Your task to perform on an android device: visit the assistant section in the google photos Image 0: 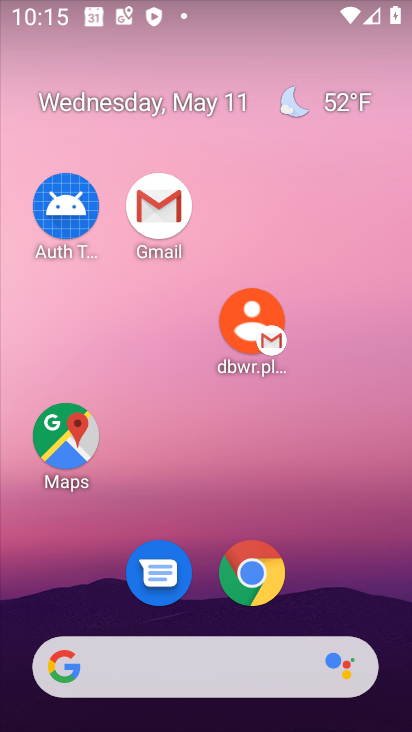
Step 0: click (294, 289)
Your task to perform on an android device: visit the assistant section in the google photos Image 1: 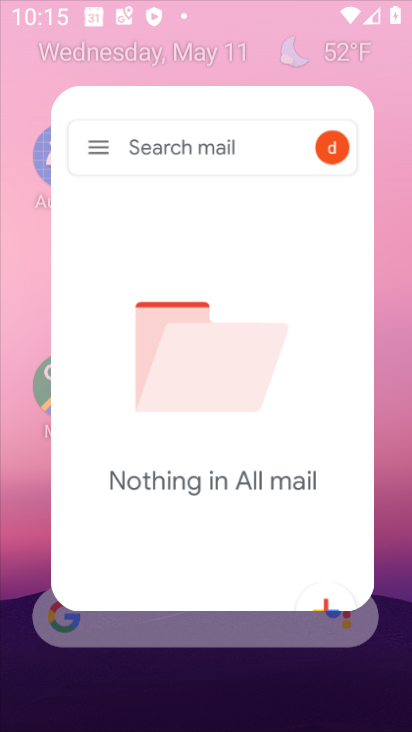
Step 1: press back button
Your task to perform on an android device: visit the assistant section in the google photos Image 2: 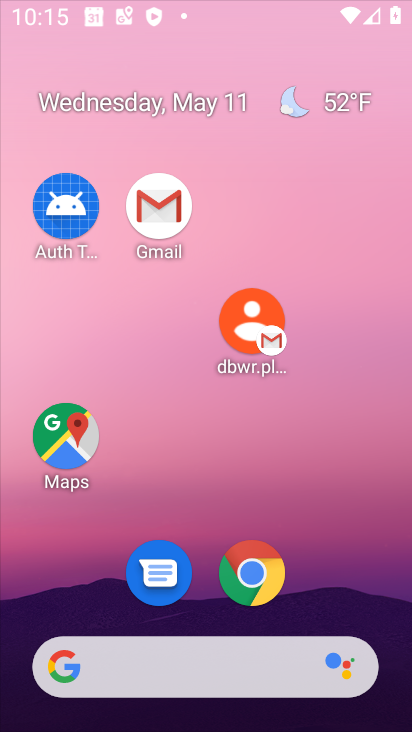
Step 2: press home button
Your task to perform on an android device: visit the assistant section in the google photos Image 3: 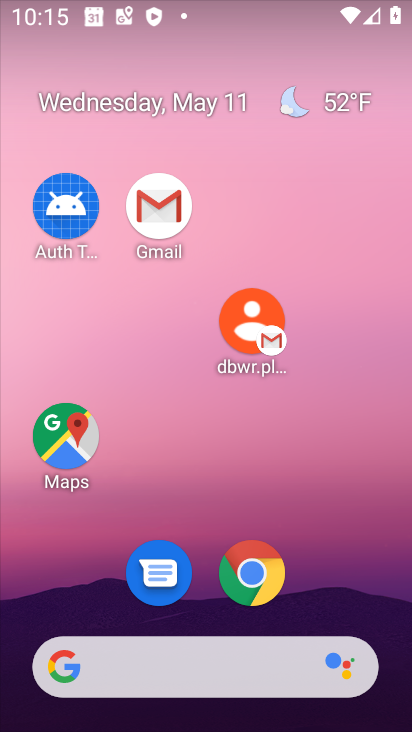
Step 3: press home button
Your task to perform on an android device: visit the assistant section in the google photos Image 4: 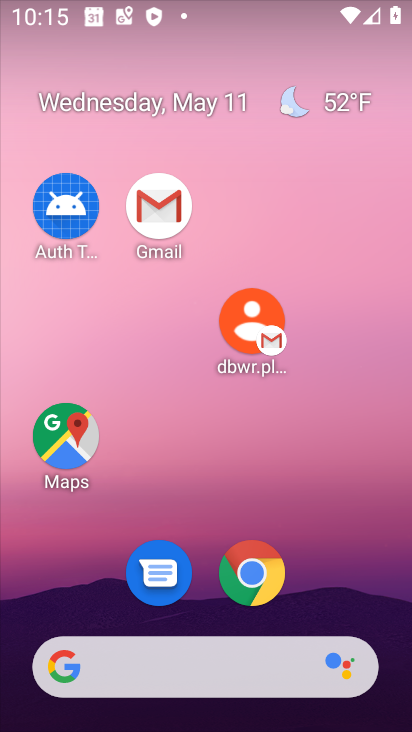
Step 4: drag from (192, 185) to (184, 141)
Your task to perform on an android device: visit the assistant section in the google photos Image 5: 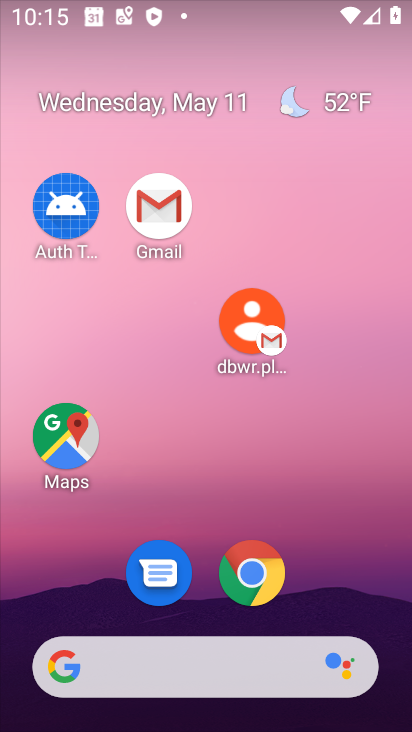
Step 5: drag from (365, 568) to (217, 165)
Your task to perform on an android device: visit the assistant section in the google photos Image 6: 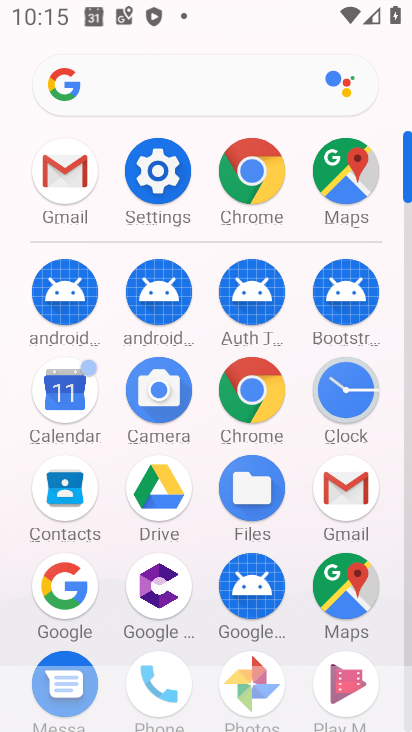
Step 6: drag from (282, 459) to (233, 91)
Your task to perform on an android device: visit the assistant section in the google photos Image 7: 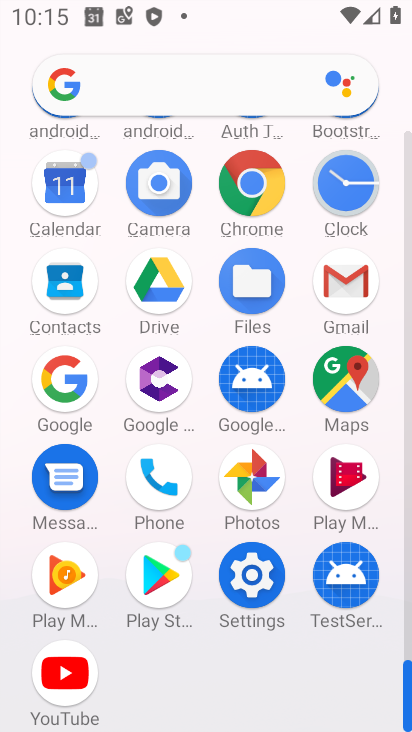
Step 7: drag from (298, 443) to (273, 128)
Your task to perform on an android device: visit the assistant section in the google photos Image 8: 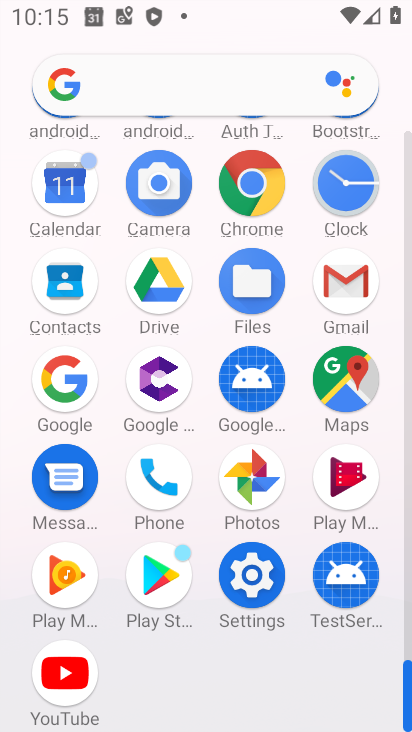
Step 8: click (258, 479)
Your task to perform on an android device: visit the assistant section in the google photos Image 9: 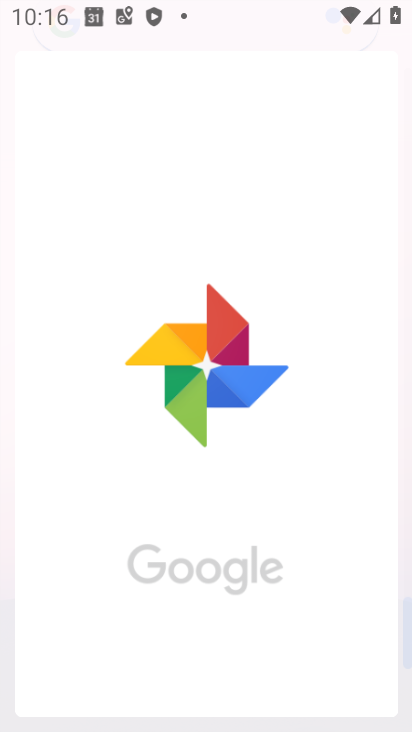
Step 9: click (249, 480)
Your task to perform on an android device: visit the assistant section in the google photos Image 10: 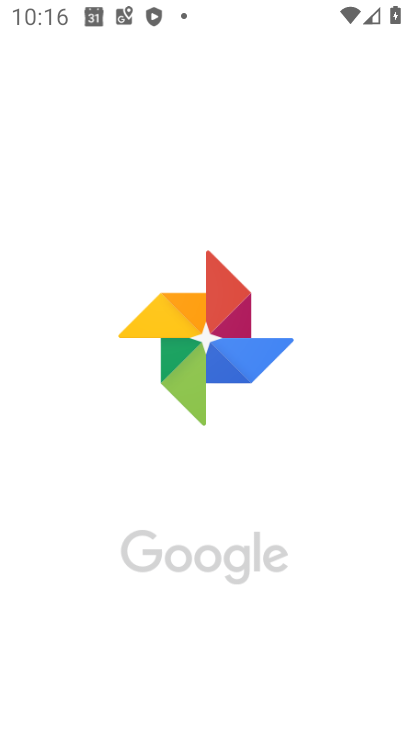
Step 10: click (249, 480)
Your task to perform on an android device: visit the assistant section in the google photos Image 11: 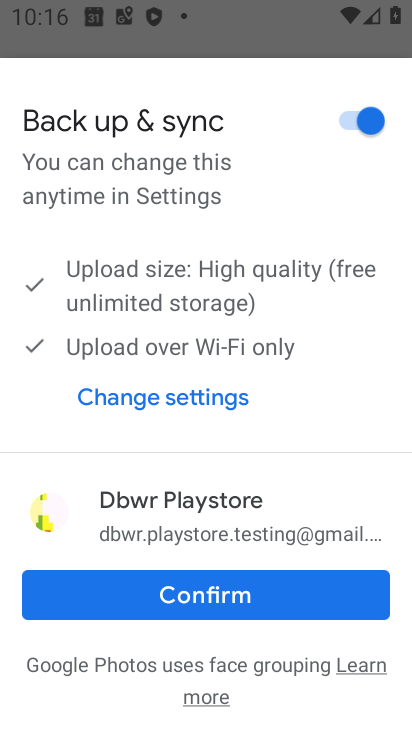
Step 11: click (234, 602)
Your task to perform on an android device: visit the assistant section in the google photos Image 12: 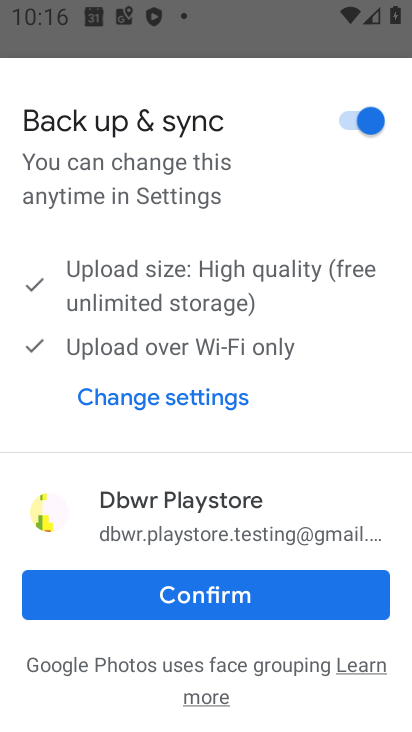
Step 12: click (249, 588)
Your task to perform on an android device: visit the assistant section in the google photos Image 13: 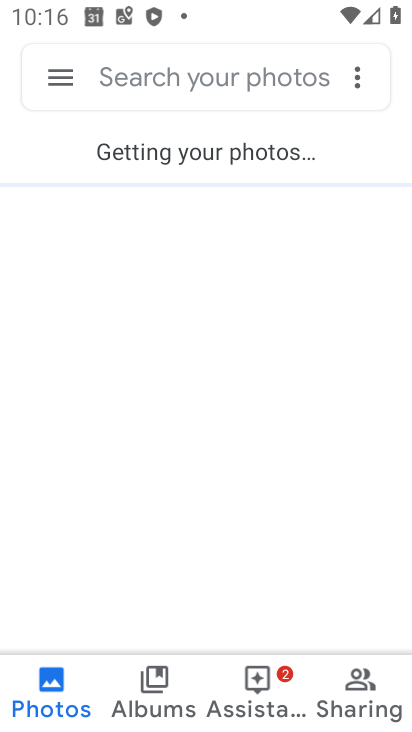
Step 13: click (241, 694)
Your task to perform on an android device: visit the assistant section in the google photos Image 14: 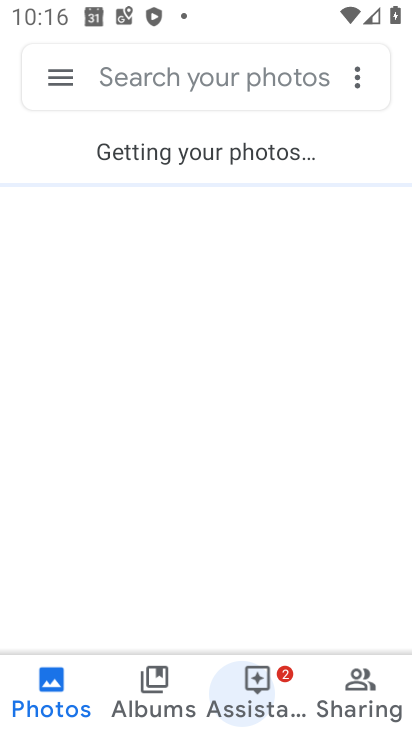
Step 14: click (242, 692)
Your task to perform on an android device: visit the assistant section in the google photos Image 15: 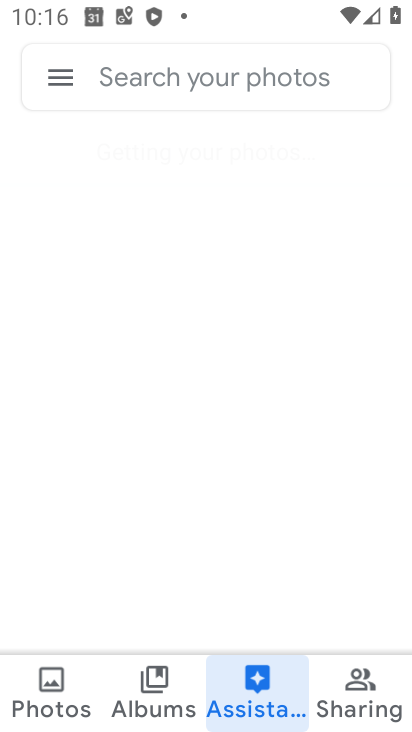
Step 15: click (243, 691)
Your task to perform on an android device: visit the assistant section in the google photos Image 16: 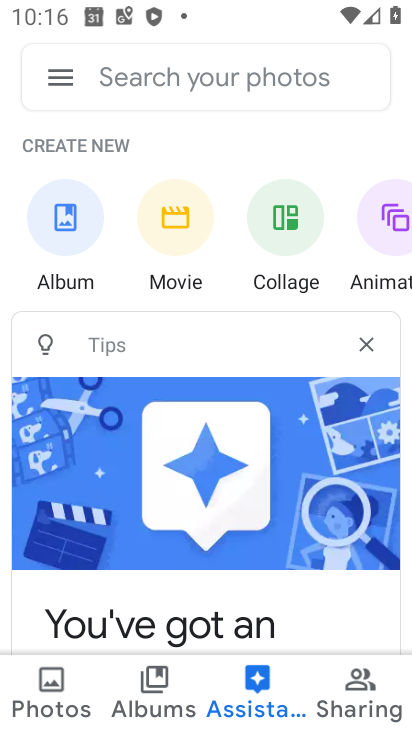
Step 16: task complete